Your task to perform on an android device: turn on translation in the chrome app Image 0: 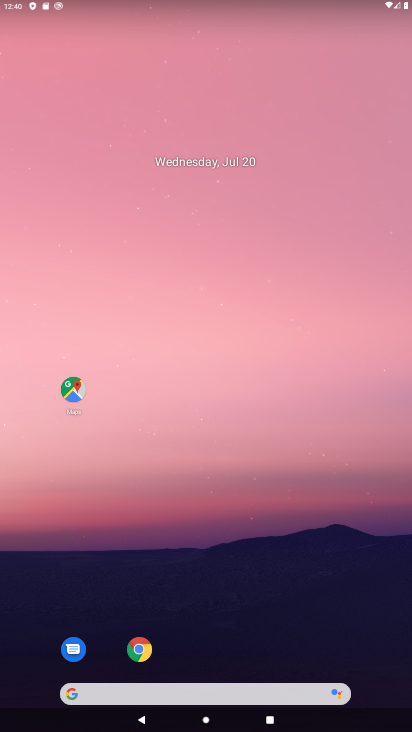
Step 0: drag from (340, 575) to (334, 97)
Your task to perform on an android device: turn on translation in the chrome app Image 1: 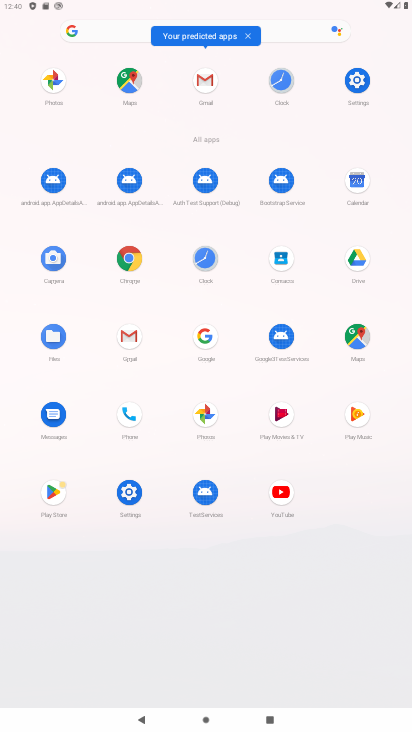
Step 1: click (128, 279)
Your task to perform on an android device: turn on translation in the chrome app Image 2: 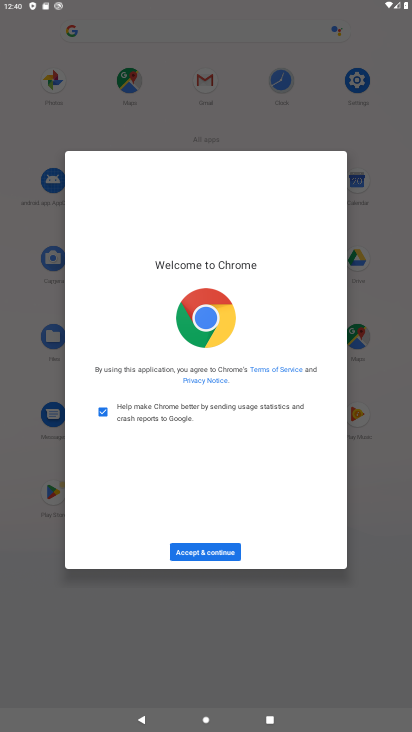
Step 2: click (191, 555)
Your task to perform on an android device: turn on translation in the chrome app Image 3: 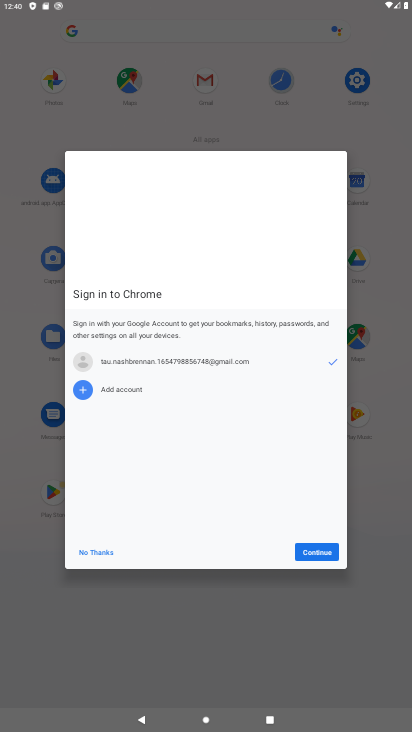
Step 3: click (312, 548)
Your task to perform on an android device: turn on translation in the chrome app Image 4: 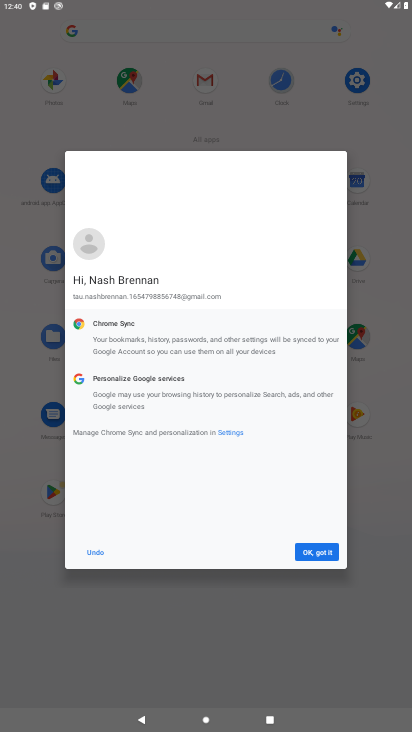
Step 4: click (312, 548)
Your task to perform on an android device: turn on translation in the chrome app Image 5: 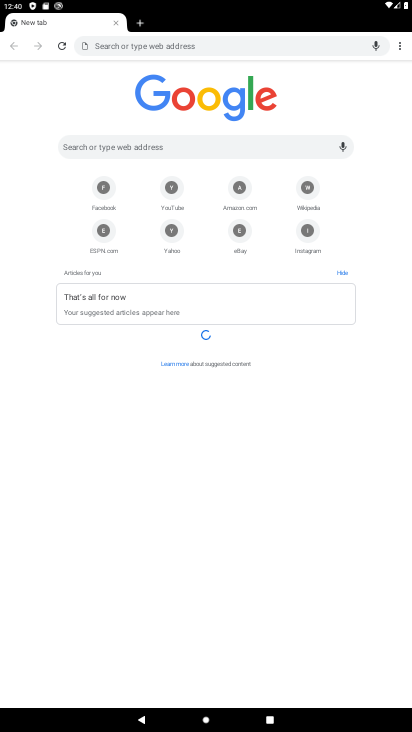
Step 5: click (398, 49)
Your task to perform on an android device: turn on translation in the chrome app Image 6: 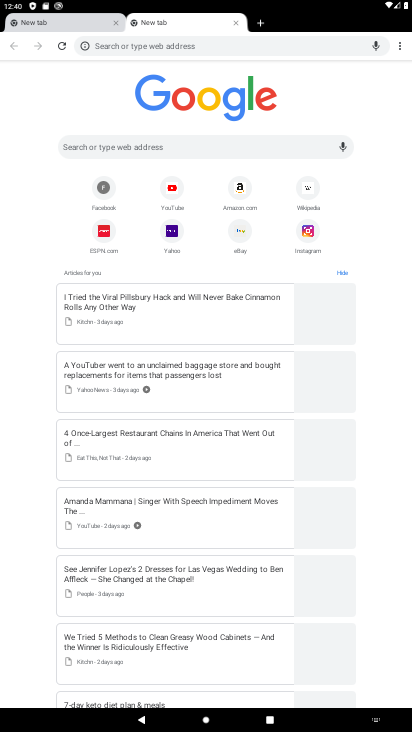
Step 6: click (395, 43)
Your task to perform on an android device: turn on translation in the chrome app Image 7: 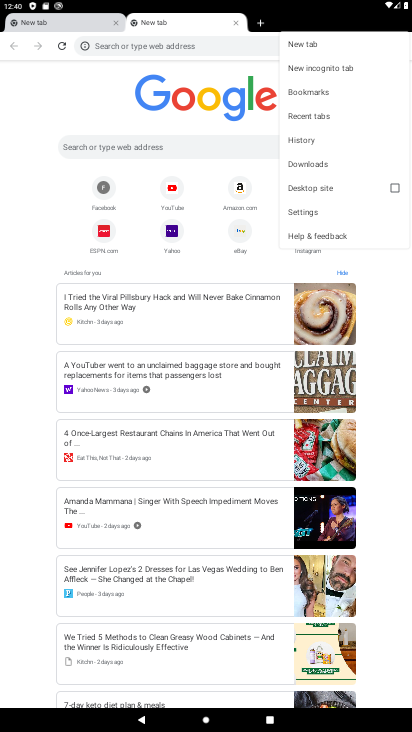
Step 7: click (331, 206)
Your task to perform on an android device: turn on translation in the chrome app Image 8: 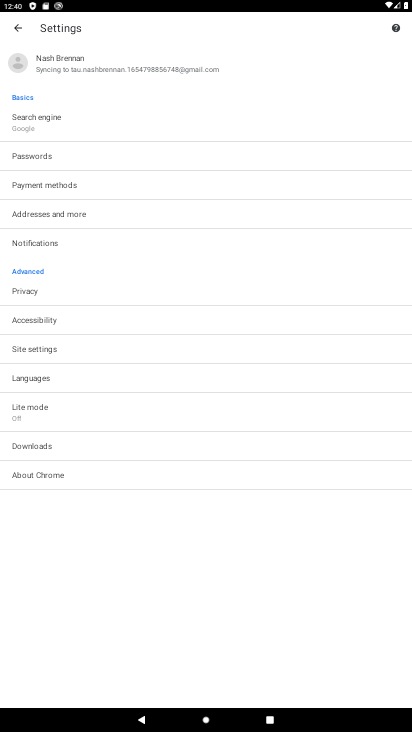
Step 8: click (122, 378)
Your task to perform on an android device: turn on translation in the chrome app Image 9: 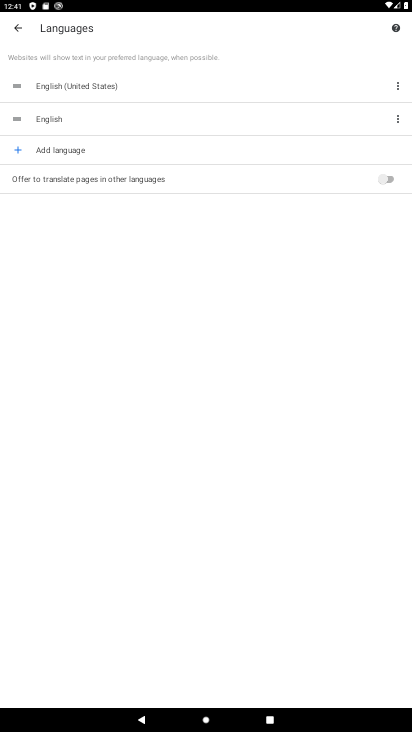
Step 9: click (388, 175)
Your task to perform on an android device: turn on translation in the chrome app Image 10: 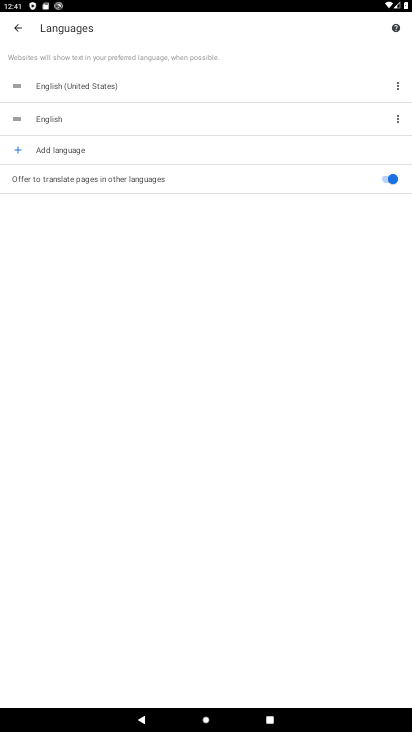
Step 10: task complete